Your task to perform on an android device: empty trash in google photos Image 0: 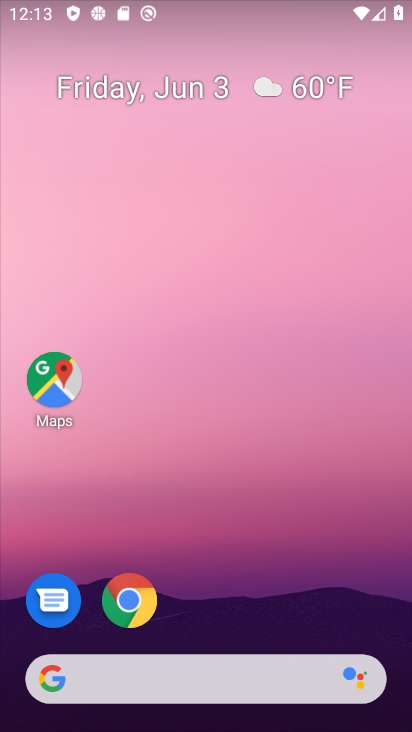
Step 0: drag from (251, 545) to (232, 151)
Your task to perform on an android device: empty trash in google photos Image 1: 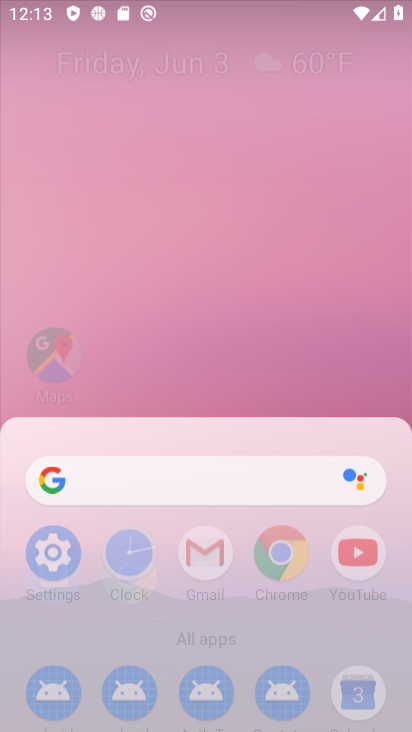
Step 1: click (238, 101)
Your task to perform on an android device: empty trash in google photos Image 2: 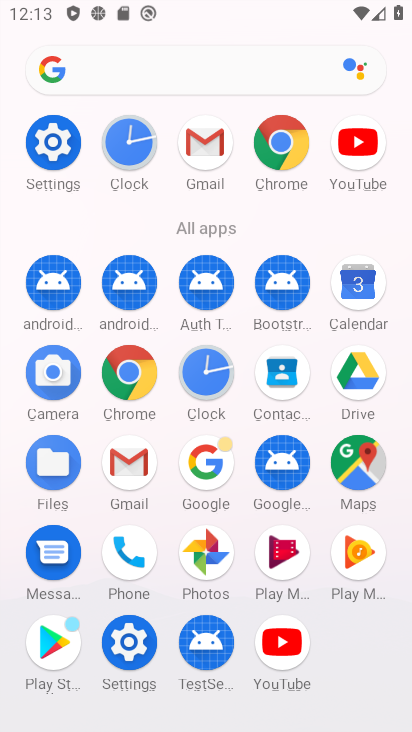
Step 2: click (210, 548)
Your task to perform on an android device: empty trash in google photos Image 3: 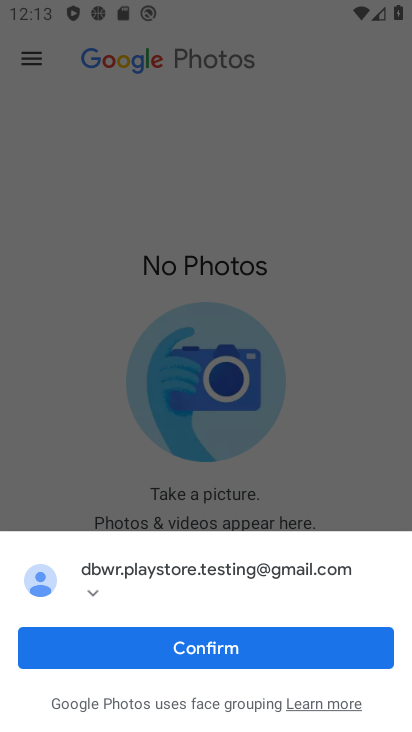
Step 3: click (22, 60)
Your task to perform on an android device: empty trash in google photos Image 4: 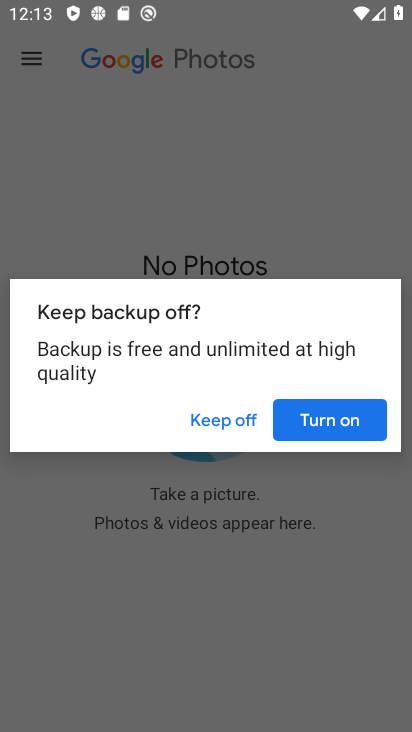
Step 4: click (330, 419)
Your task to perform on an android device: empty trash in google photos Image 5: 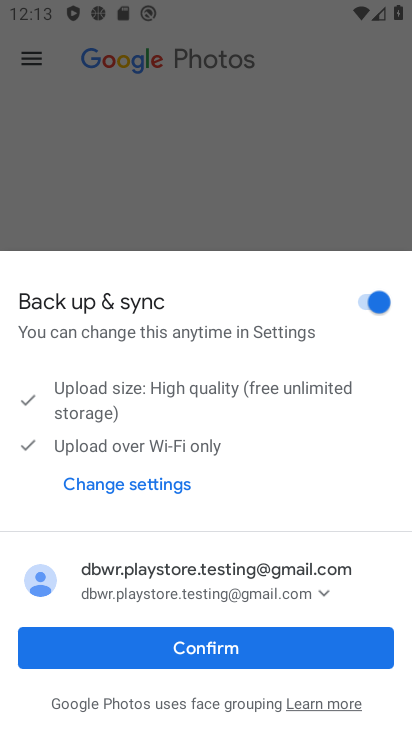
Step 5: click (256, 636)
Your task to perform on an android device: empty trash in google photos Image 6: 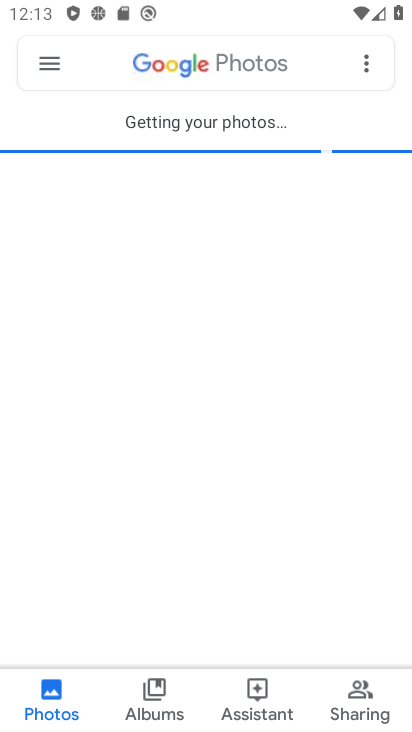
Step 6: click (40, 56)
Your task to perform on an android device: empty trash in google photos Image 7: 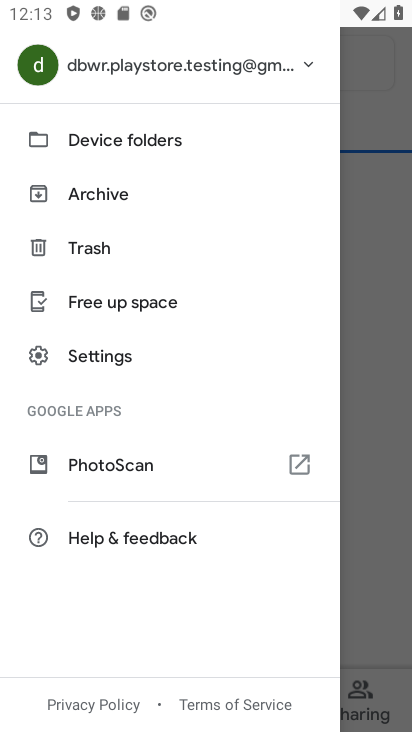
Step 7: click (121, 261)
Your task to perform on an android device: empty trash in google photos Image 8: 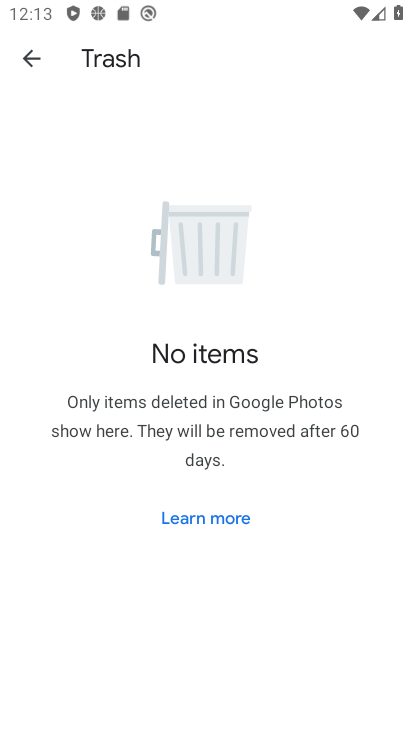
Step 8: task complete